Your task to perform on an android device: Open Youtube and go to the subscriptions tab Image 0: 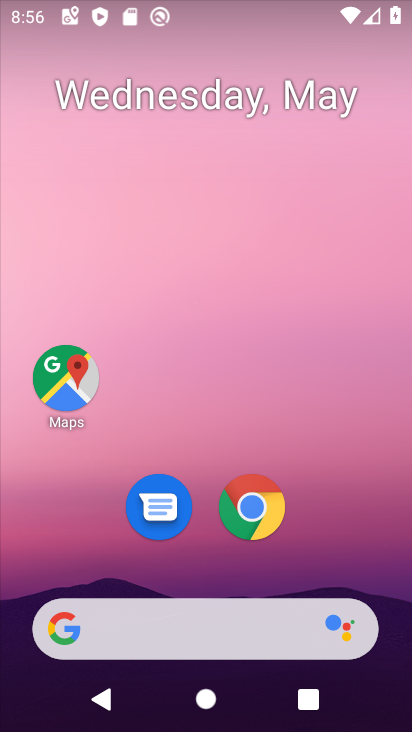
Step 0: drag from (382, 550) to (238, 146)
Your task to perform on an android device: Open Youtube and go to the subscriptions tab Image 1: 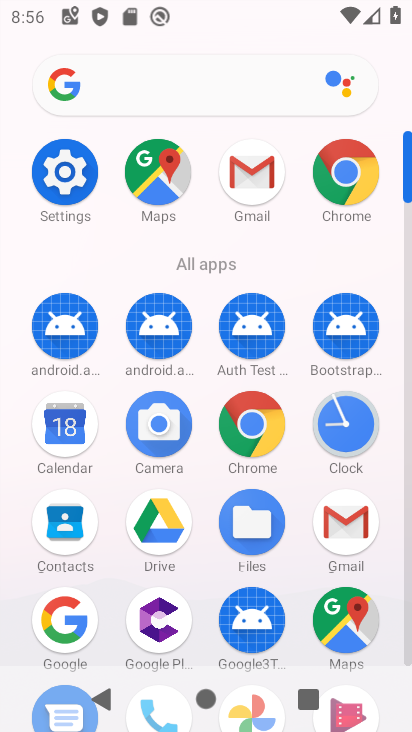
Step 1: click (404, 649)
Your task to perform on an android device: Open Youtube and go to the subscriptions tab Image 2: 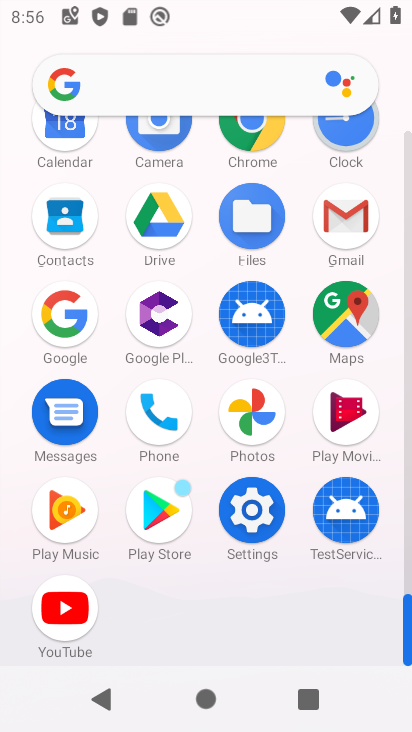
Step 2: click (76, 628)
Your task to perform on an android device: Open Youtube and go to the subscriptions tab Image 3: 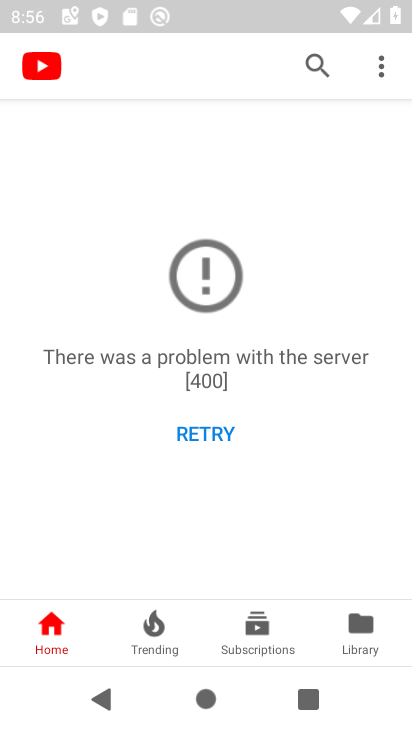
Step 3: click (254, 629)
Your task to perform on an android device: Open Youtube and go to the subscriptions tab Image 4: 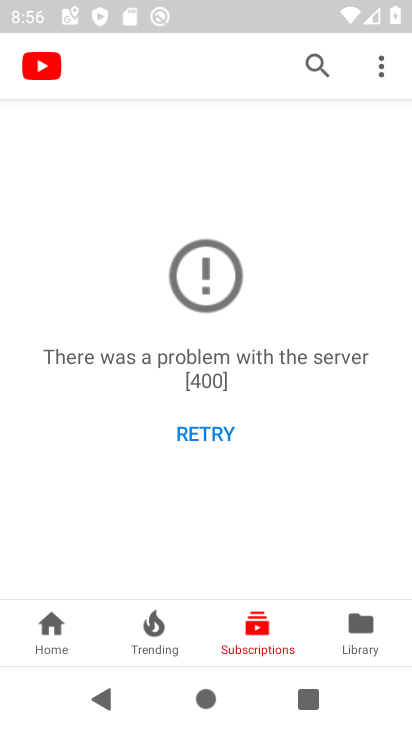
Step 4: task complete